Your task to perform on an android device: turn off data saver in the chrome app Image 0: 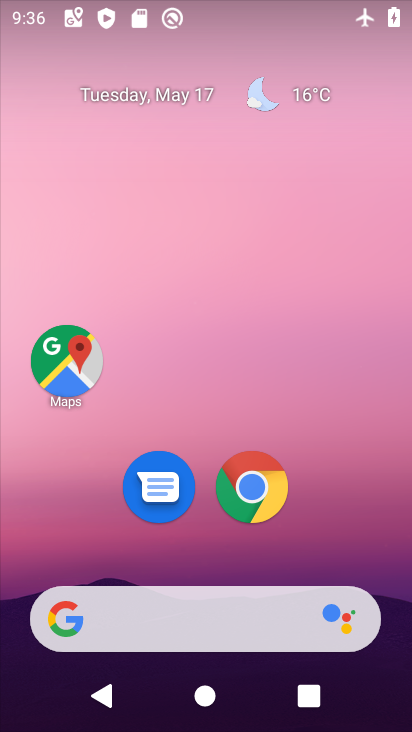
Step 0: click (240, 492)
Your task to perform on an android device: turn off data saver in the chrome app Image 1: 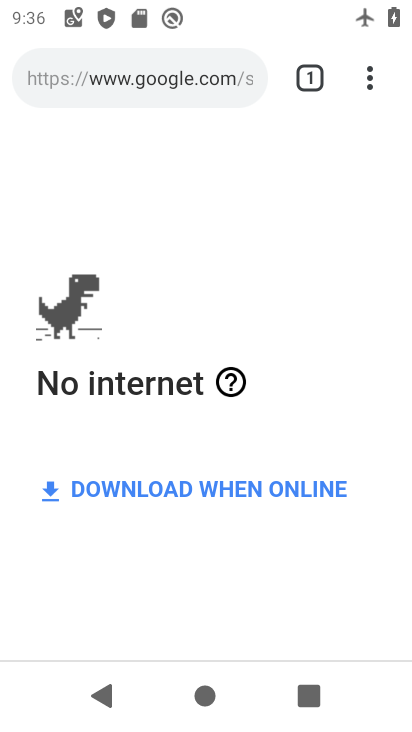
Step 1: click (371, 79)
Your task to perform on an android device: turn off data saver in the chrome app Image 2: 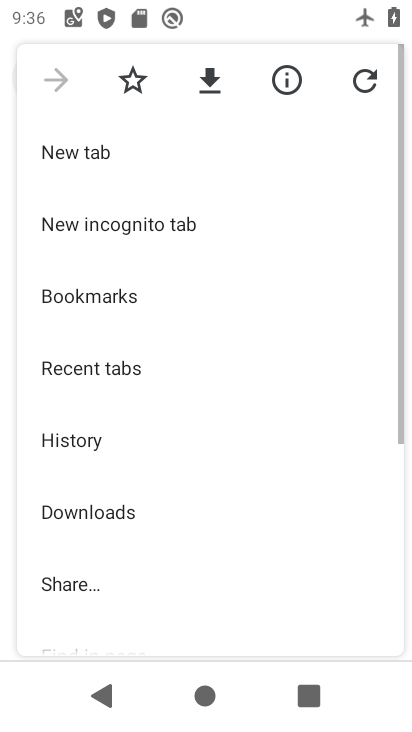
Step 2: drag from (98, 574) to (109, 141)
Your task to perform on an android device: turn off data saver in the chrome app Image 3: 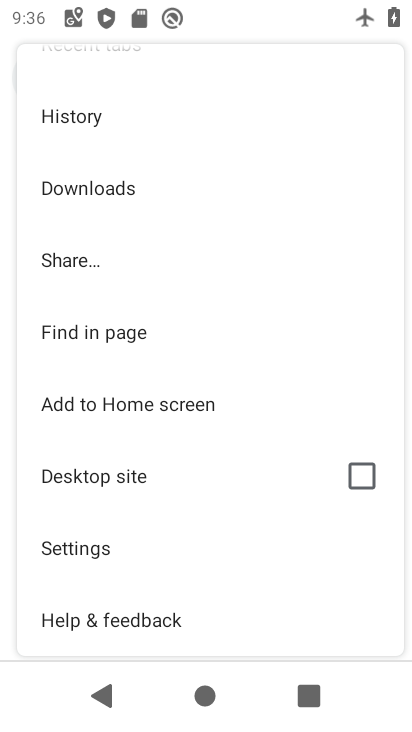
Step 3: click (79, 555)
Your task to perform on an android device: turn off data saver in the chrome app Image 4: 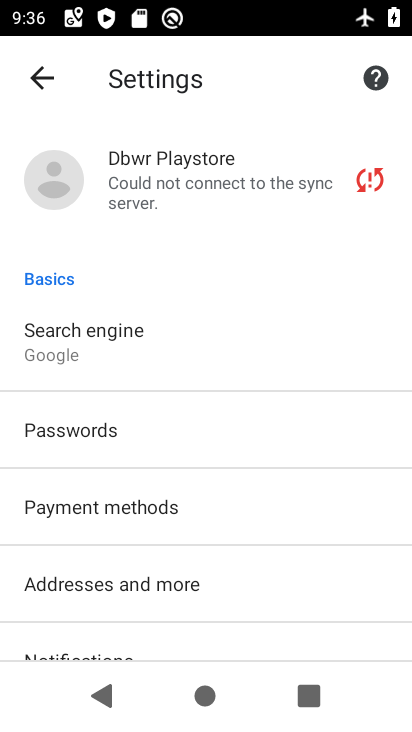
Step 4: drag from (121, 575) to (201, 163)
Your task to perform on an android device: turn off data saver in the chrome app Image 5: 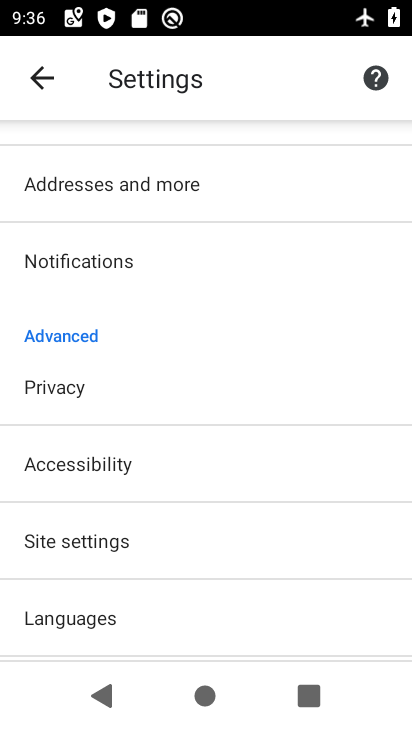
Step 5: drag from (151, 597) to (172, 289)
Your task to perform on an android device: turn off data saver in the chrome app Image 6: 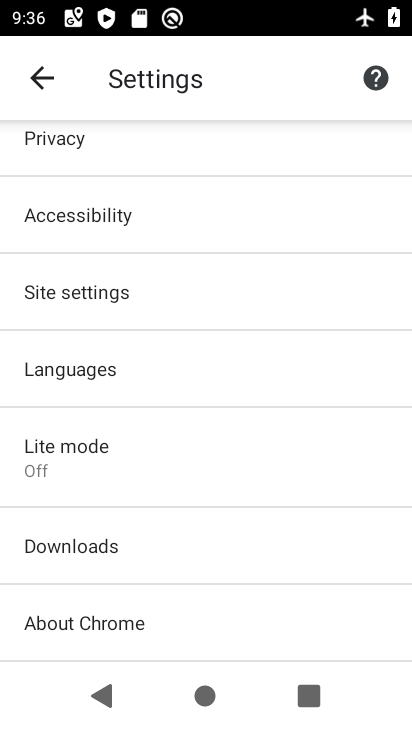
Step 6: click (85, 465)
Your task to perform on an android device: turn off data saver in the chrome app Image 7: 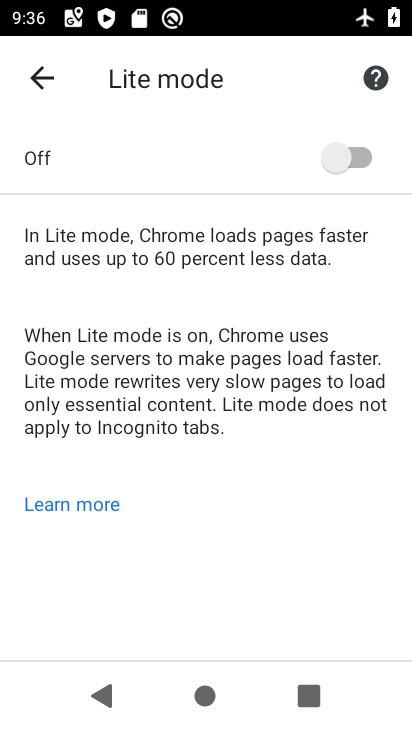
Step 7: task complete